Your task to perform on an android device: Open notification settings Image 0: 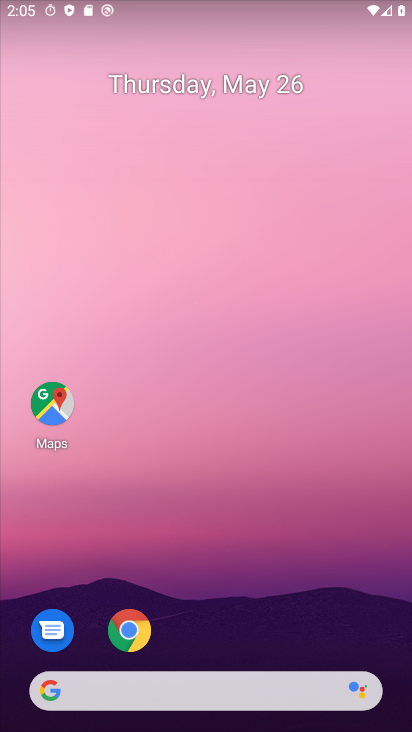
Step 0: drag from (301, 555) to (288, 189)
Your task to perform on an android device: Open notification settings Image 1: 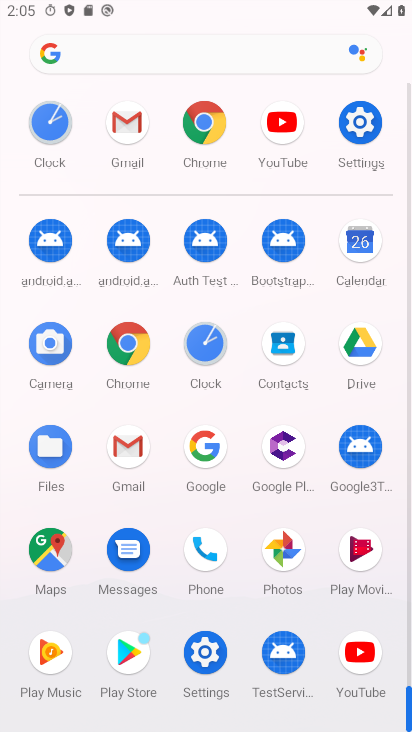
Step 1: click (343, 114)
Your task to perform on an android device: Open notification settings Image 2: 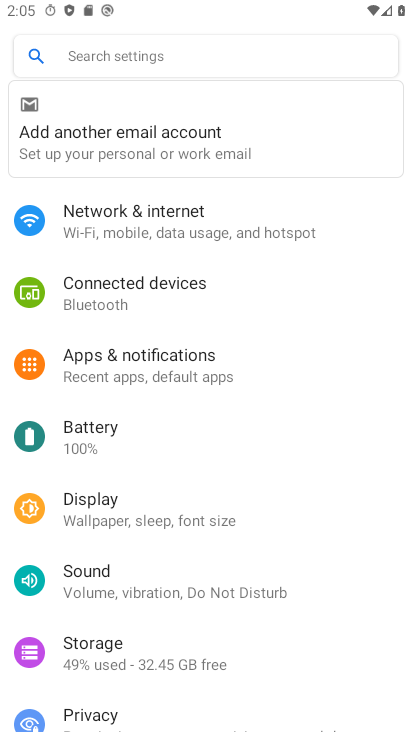
Step 2: click (83, 379)
Your task to perform on an android device: Open notification settings Image 3: 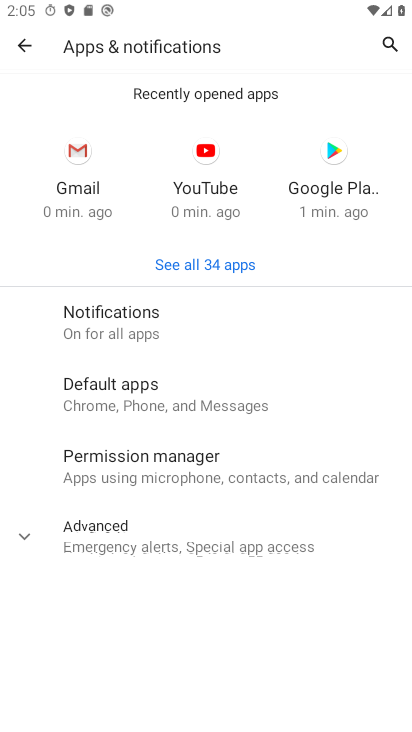
Step 3: click (104, 314)
Your task to perform on an android device: Open notification settings Image 4: 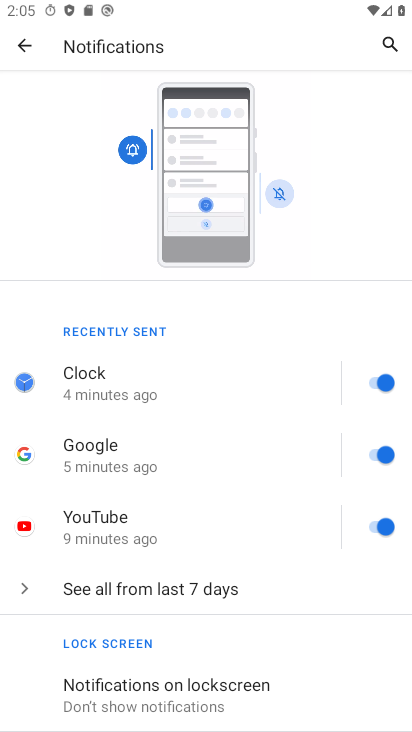
Step 4: task complete